Your task to perform on an android device: Show me popular games on the Play Store Image 0: 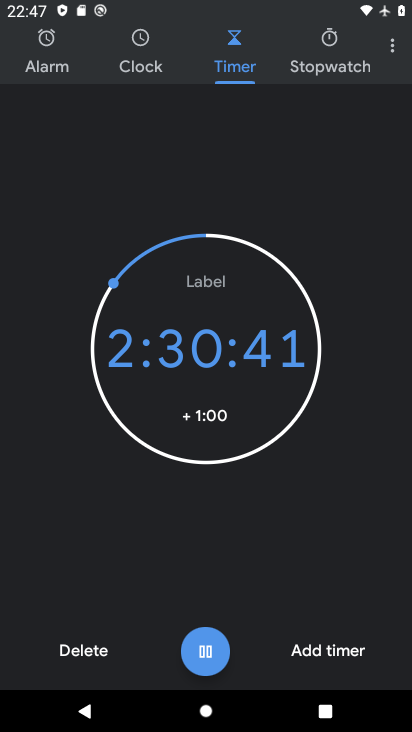
Step 0: press back button
Your task to perform on an android device: Show me popular games on the Play Store Image 1: 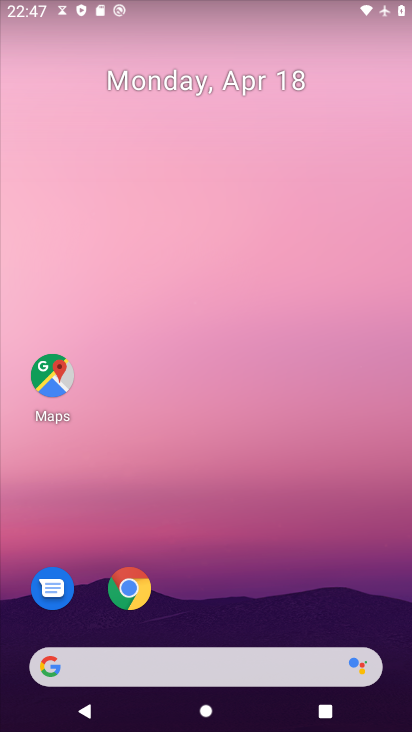
Step 1: drag from (223, 583) to (75, 57)
Your task to perform on an android device: Show me popular games on the Play Store Image 2: 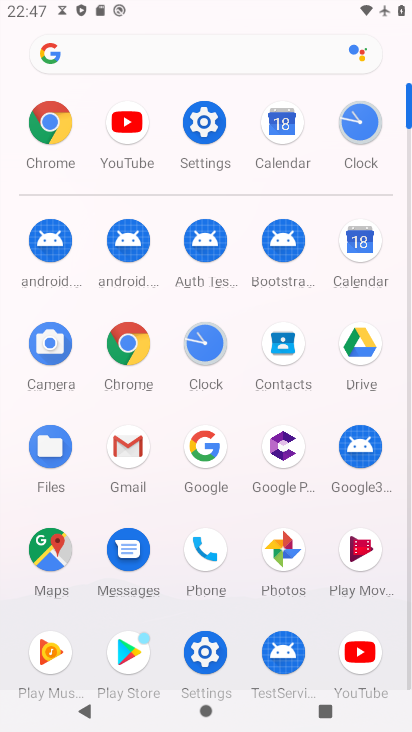
Step 2: drag from (10, 506) to (1, 303)
Your task to perform on an android device: Show me popular games on the Play Store Image 3: 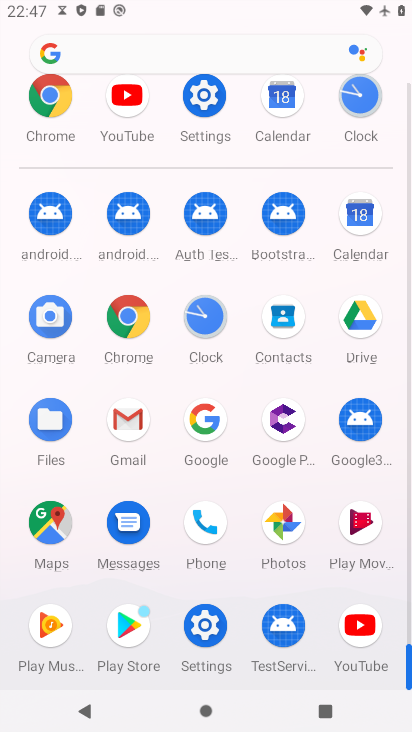
Step 3: drag from (1, 176) to (17, 452)
Your task to perform on an android device: Show me popular games on the Play Store Image 4: 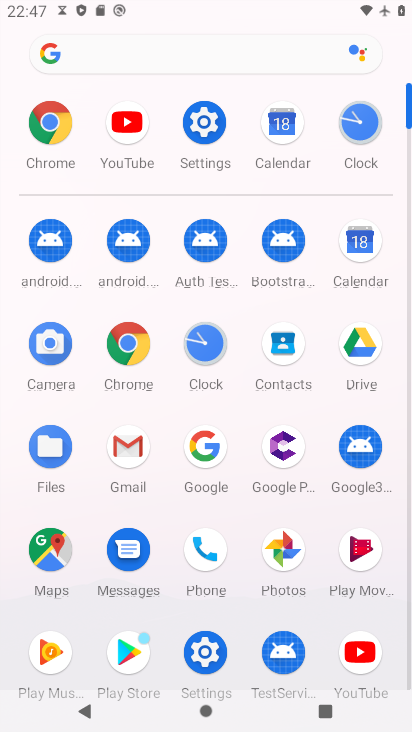
Step 4: click (129, 660)
Your task to perform on an android device: Show me popular games on the Play Store Image 5: 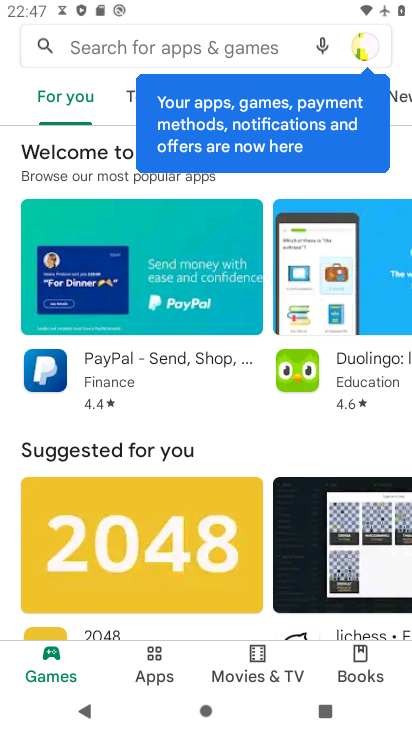
Step 5: drag from (185, 377) to (121, 128)
Your task to perform on an android device: Show me popular games on the Play Store Image 6: 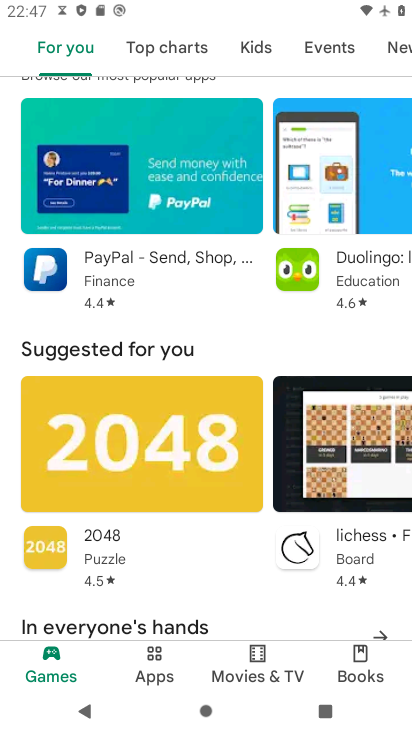
Step 6: drag from (176, 476) to (139, 144)
Your task to perform on an android device: Show me popular games on the Play Store Image 7: 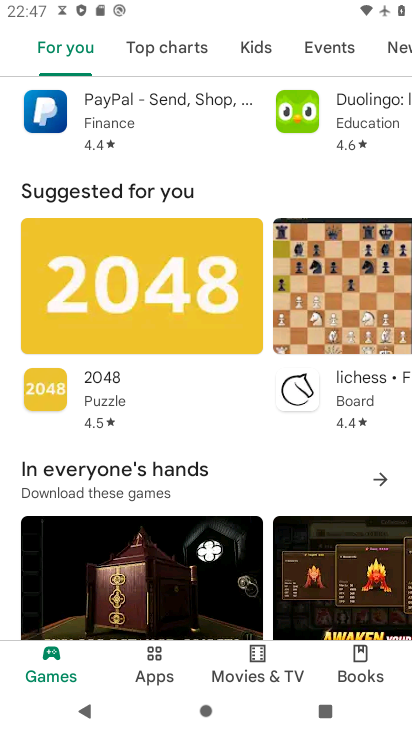
Step 7: drag from (183, 402) to (133, 99)
Your task to perform on an android device: Show me popular games on the Play Store Image 8: 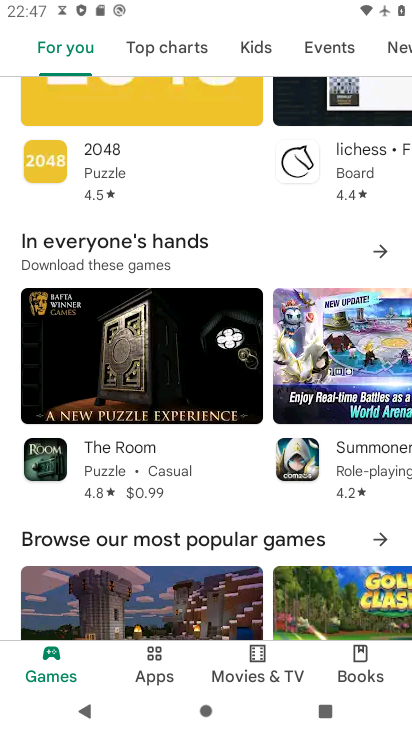
Step 8: drag from (206, 467) to (185, 121)
Your task to perform on an android device: Show me popular games on the Play Store Image 9: 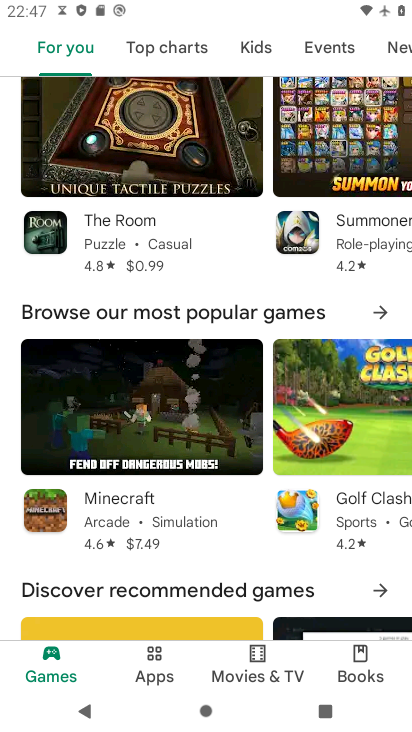
Step 9: drag from (202, 323) to (193, 110)
Your task to perform on an android device: Show me popular games on the Play Store Image 10: 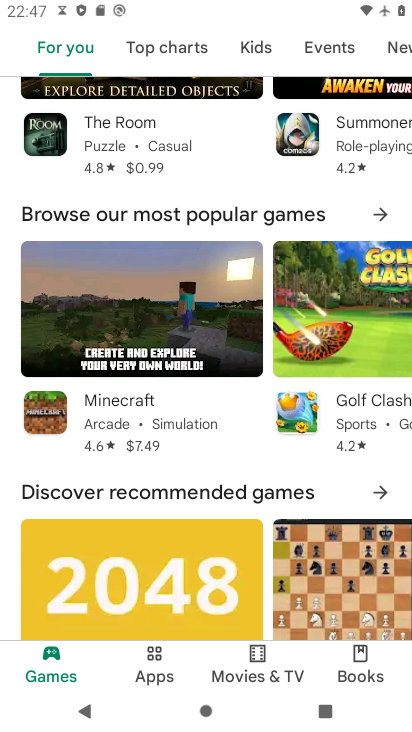
Step 10: drag from (215, 411) to (204, 88)
Your task to perform on an android device: Show me popular games on the Play Store Image 11: 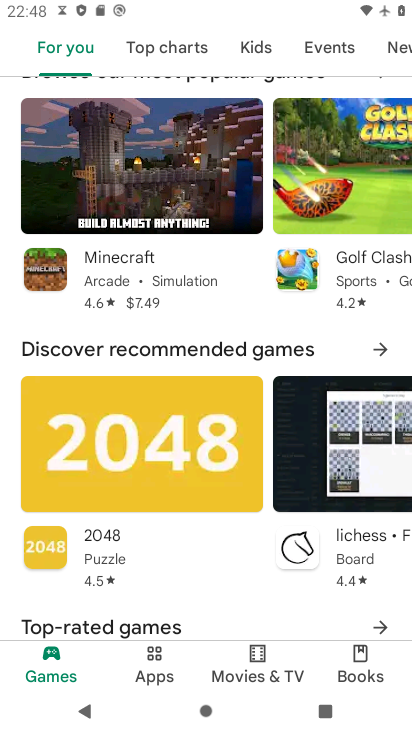
Step 11: drag from (197, 466) to (183, 167)
Your task to perform on an android device: Show me popular games on the Play Store Image 12: 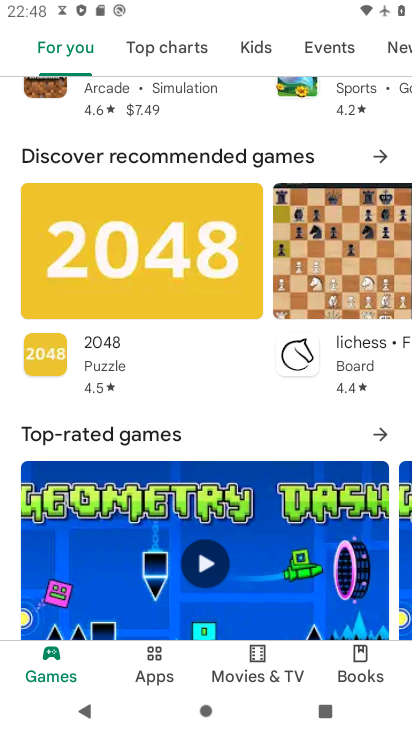
Step 12: drag from (273, 238) to (299, 448)
Your task to perform on an android device: Show me popular games on the Play Store Image 13: 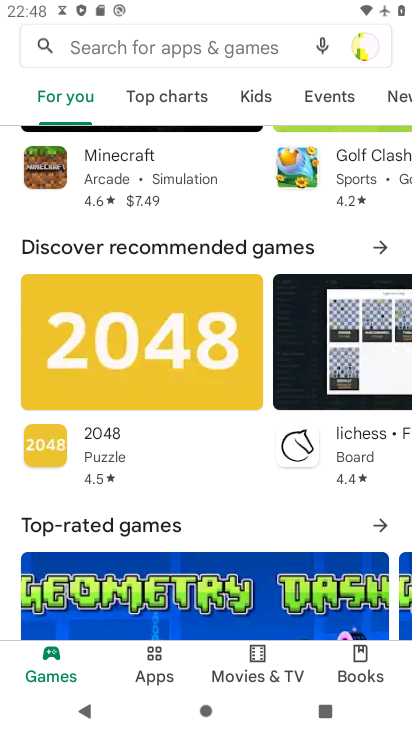
Step 13: drag from (225, 172) to (220, 385)
Your task to perform on an android device: Show me popular games on the Play Store Image 14: 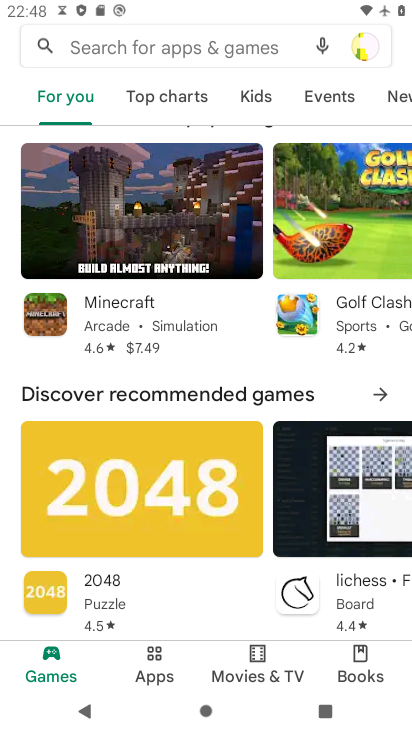
Step 14: click (178, 96)
Your task to perform on an android device: Show me popular games on the Play Store Image 15: 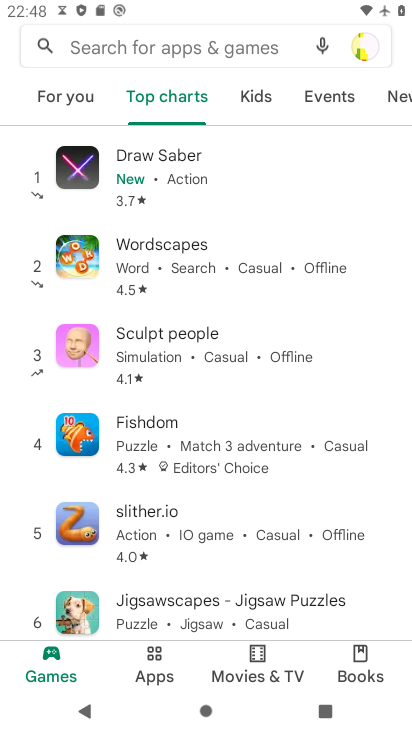
Step 15: click (84, 95)
Your task to perform on an android device: Show me popular games on the Play Store Image 16: 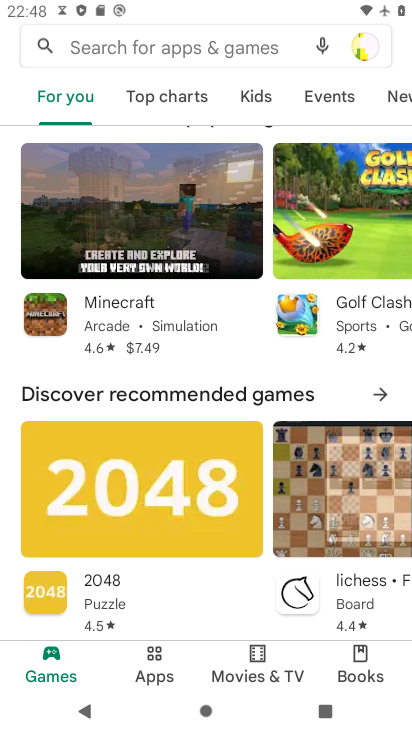
Step 16: task complete